Your task to perform on an android device: Go to Maps Image 0: 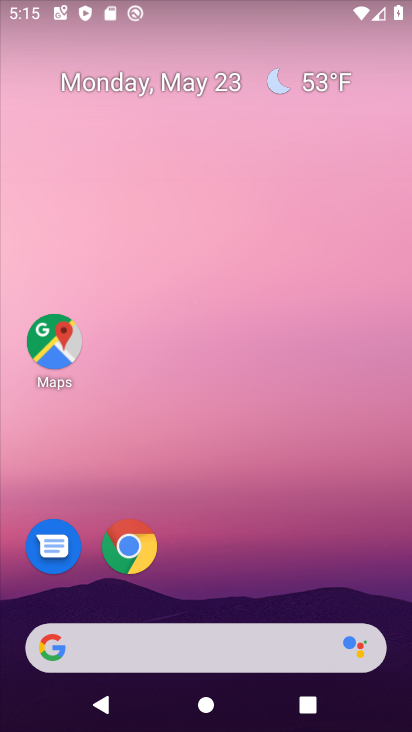
Step 0: click (60, 339)
Your task to perform on an android device: Go to Maps Image 1: 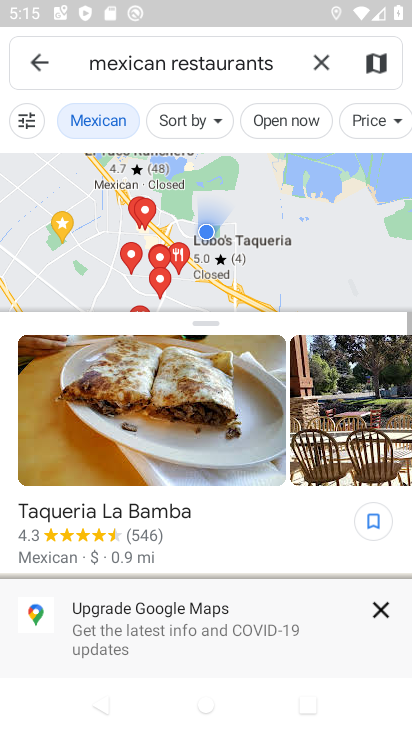
Step 1: task complete